Your task to perform on an android device: see tabs open on other devices in the chrome app Image 0: 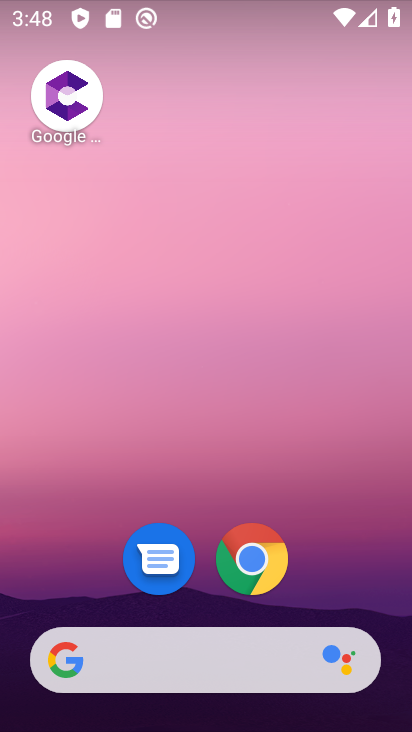
Step 0: click (255, 576)
Your task to perform on an android device: see tabs open on other devices in the chrome app Image 1: 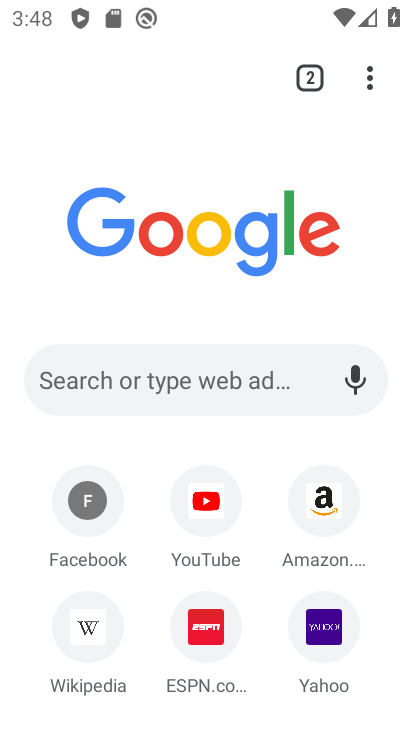
Step 1: click (364, 83)
Your task to perform on an android device: see tabs open on other devices in the chrome app Image 2: 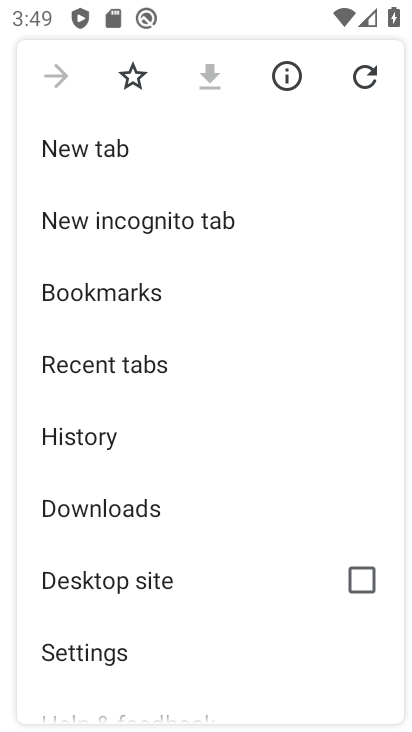
Step 2: drag from (231, 542) to (252, 308)
Your task to perform on an android device: see tabs open on other devices in the chrome app Image 3: 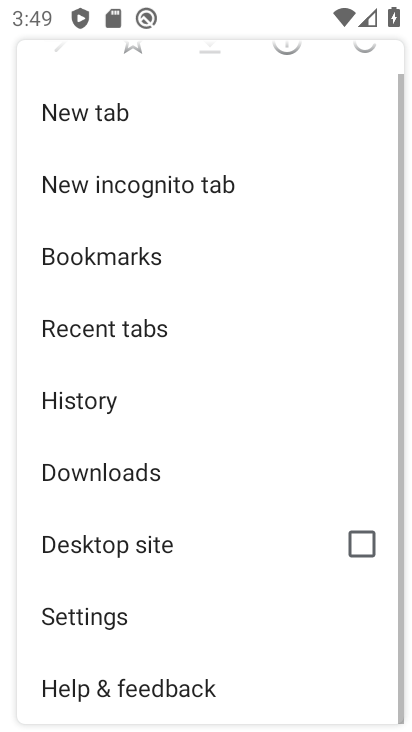
Step 3: drag from (265, 392) to (269, 186)
Your task to perform on an android device: see tabs open on other devices in the chrome app Image 4: 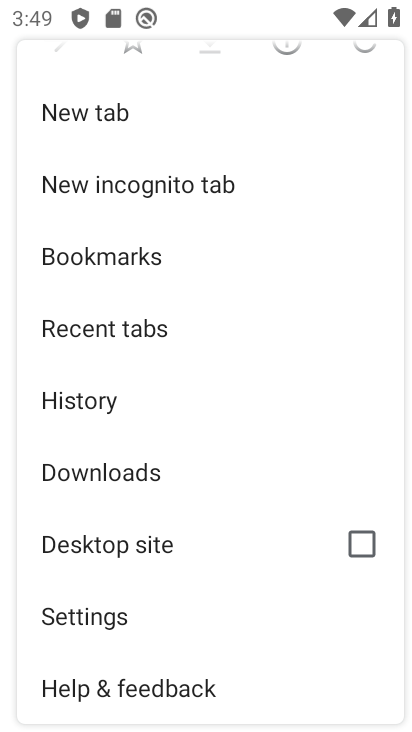
Step 4: click (255, 298)
Your task to perform on an android device: see tabs open on other devices in the chrome app Image 5: 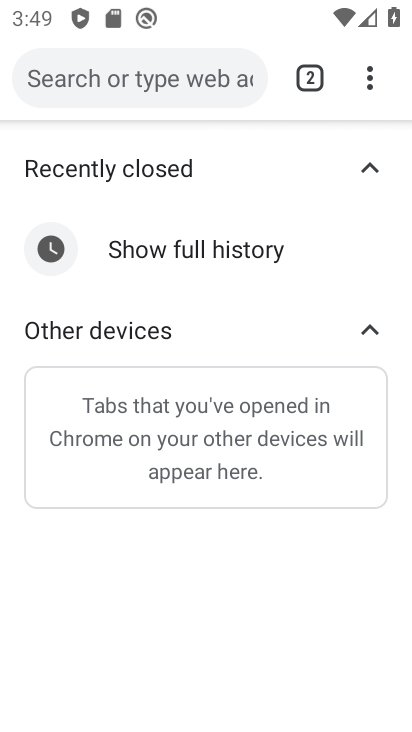
Step 5: press back button
Your task to perform on an android device: see tabs open on other devices in the chrome app Image 6: 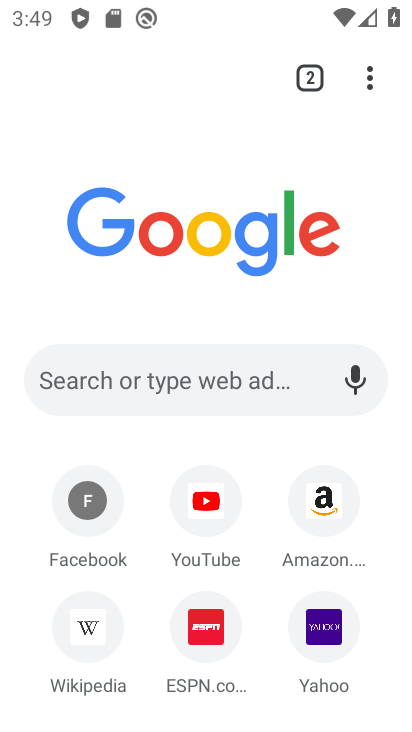
Step 6: click (371, 75)
Your task to perform on an android device: see tabs open on other devices in the chrome app Image 7: 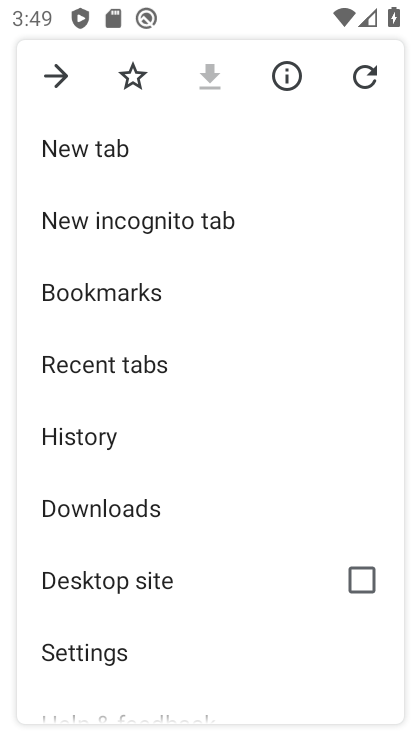
Step 7: click (85, 366)
Your task to perform on an android device: see tabs open on other devices in the chrome app Image 8: 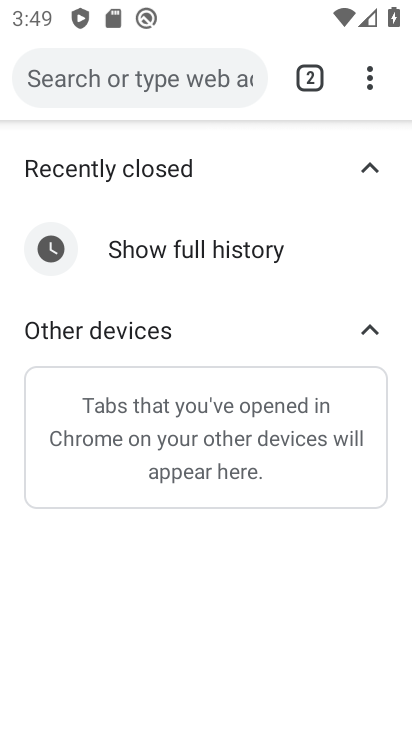
Step 8: task complete